Your task to perform on an android device: Search for Italian restaurants on Maps Image 0: 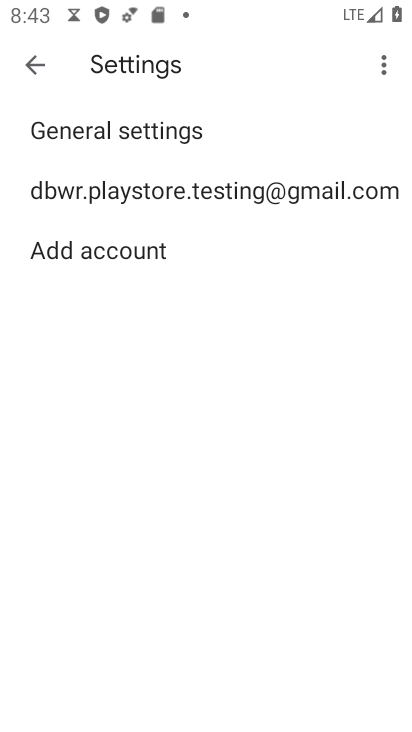
Step 0: press back button
Your task to perform on an android device: Search for Italian restaurants on Maps Image 1: 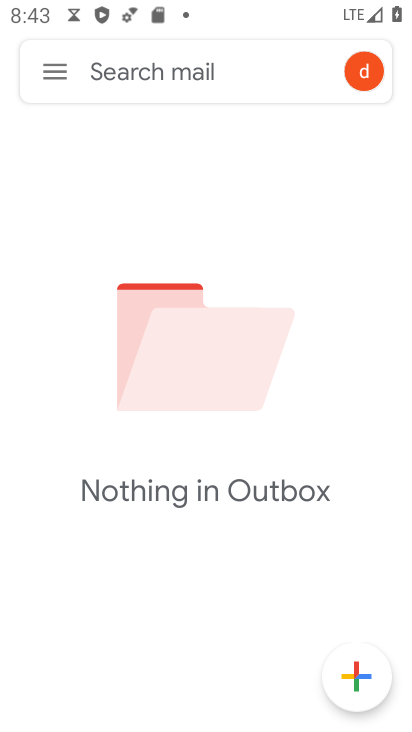
Step 1: press back button
Your task to perform on an android device: Search for Italian restaurants on Maps Image 2: 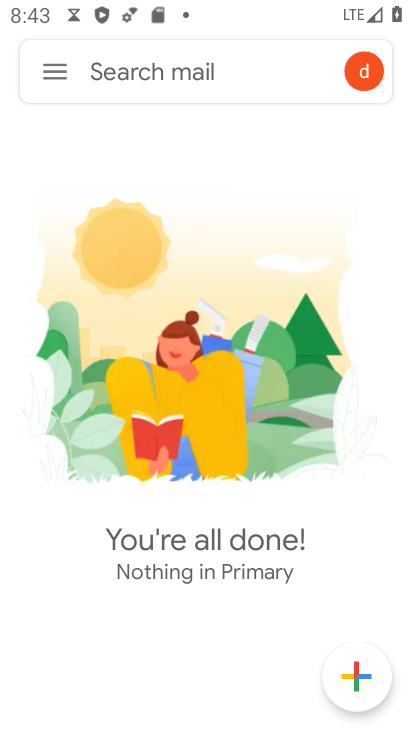
Step 2: press home button
Your task to perform on an android device: Search for Italian restaurants on Maps Image 3: 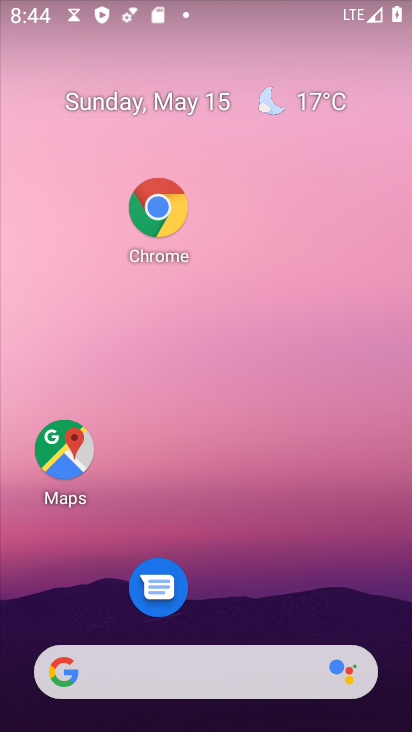
Step 3: drag from (238, 603) to (87, 94)
Your task to perform on an android device: Search for Italian restaurants on Maps Image 4: 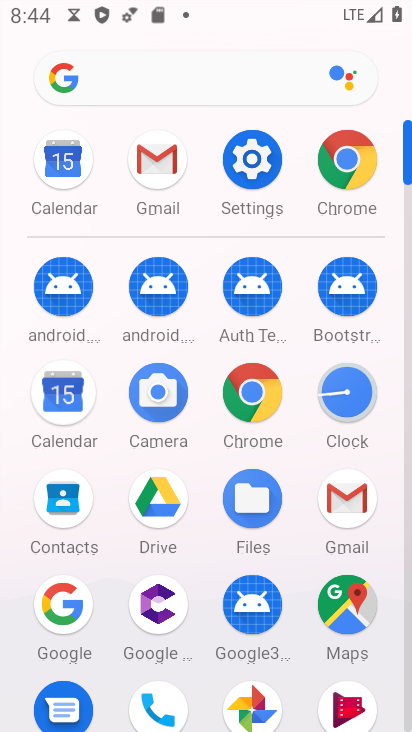
Step 4: click (343, 586)
Your task to perform on an android device: Search for Italian restaurants on Maps Image 5: 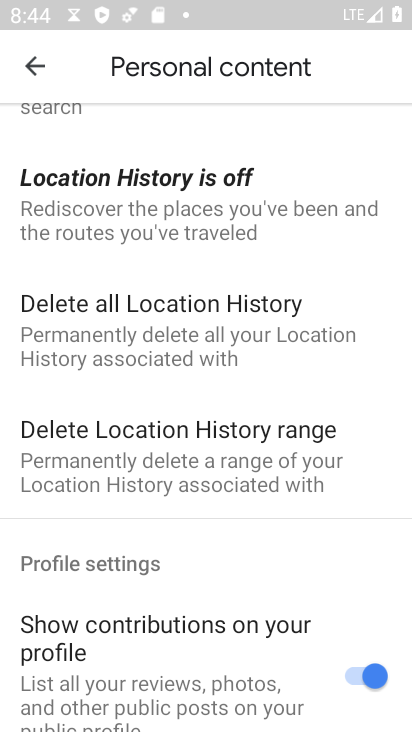
Step 5: click (32, 70)
Your task to perform on an android device: Search for Italian restaurants on Maps Image 6: 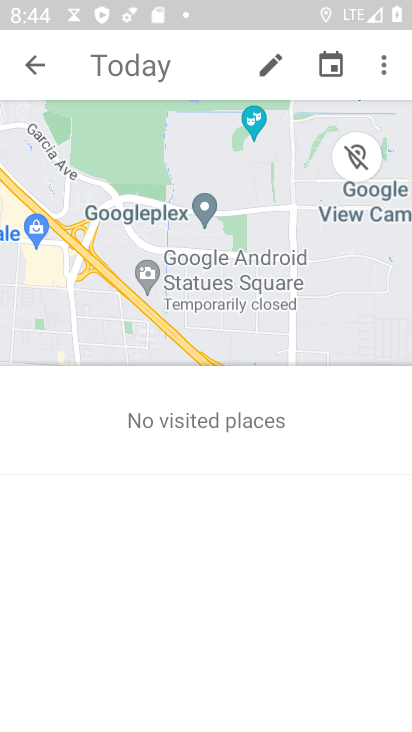
Step 6: click (30, 64)
Your task to perform on an android device: Search for Italian restaurants on Maps Image 7: 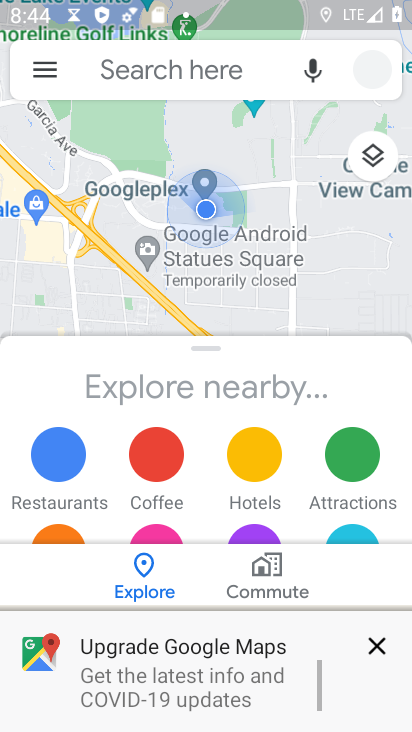
Step 7: click (121, 79)
Your task to perform on an android device: Search for Italian restaurants on Maps Image 8: 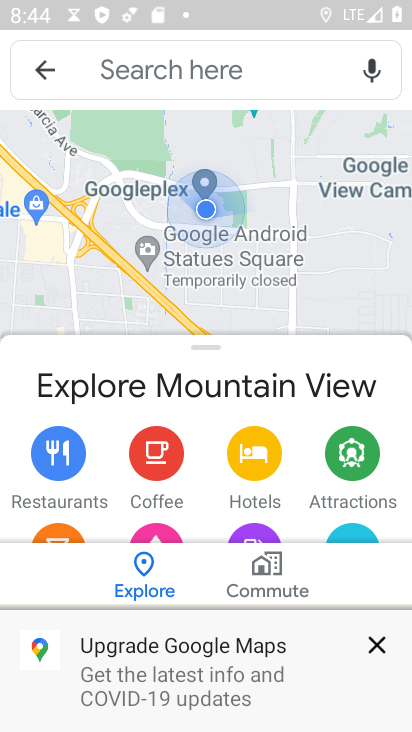
Step 8: click (110, 65)
Your task to perform on an android device: Search for Italian restaurants on Maps Image 9: 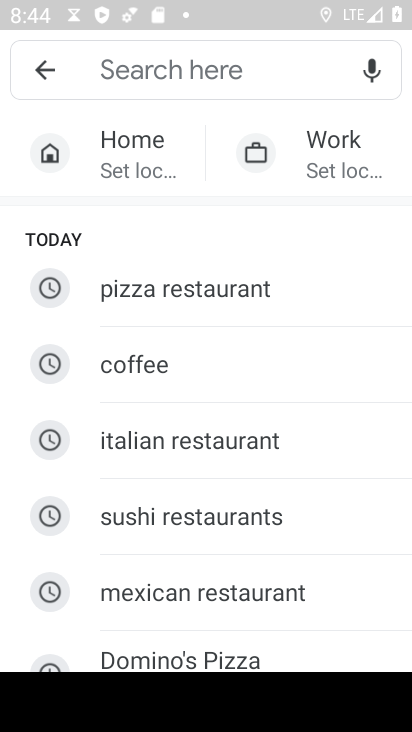
Step 9: click (163, 437)
Your task to perform on an android device: Search for Italian restaurants on Maps Image 10: 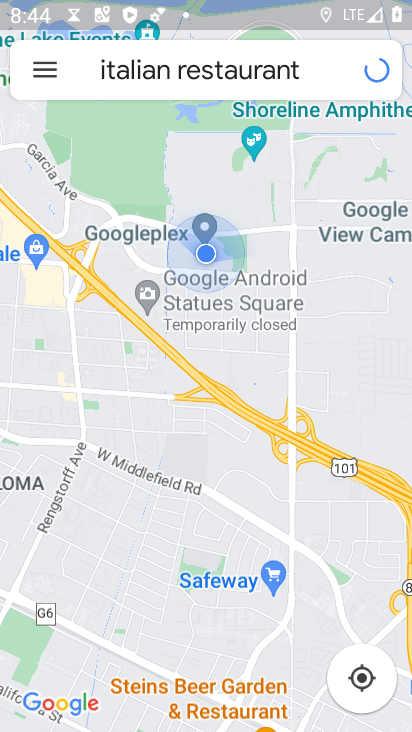
Step 10: task complete